Your task to perform on an android device: Open the web browser Image 0: 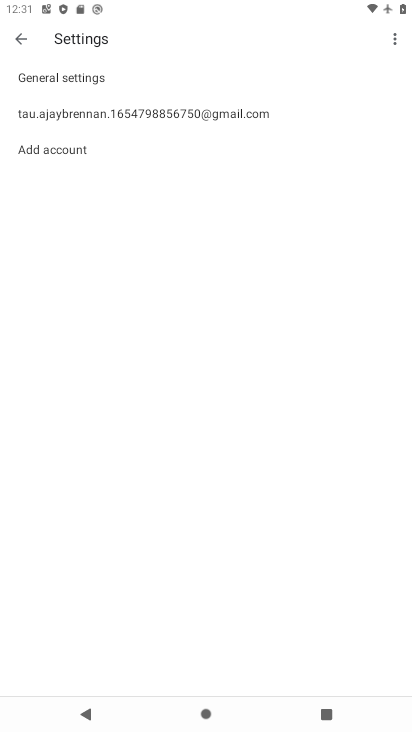
Step 0: press home button
Your task to perform on an android device: Open the web browser Image 1: 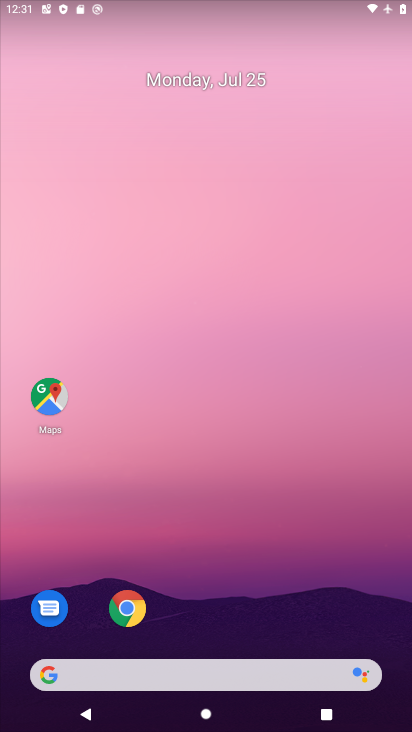
Step 1: drag from (143, 663) to (306, 79)
Your task to perform on an android device: Open the web browser Image 2: 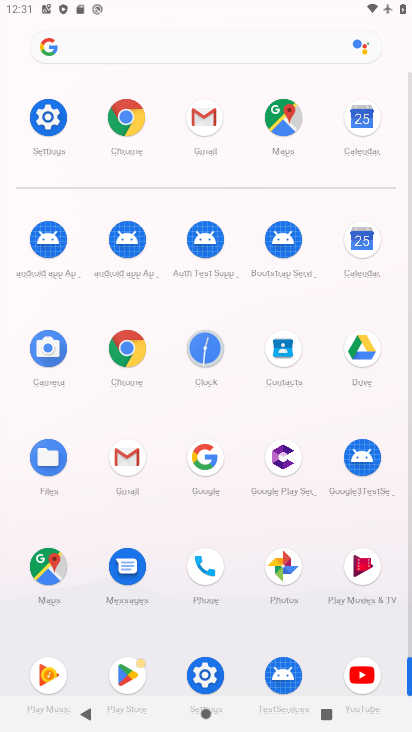
Step 2: click (133, 130)
Your task to perform on an android device: Open the web browser Image 3: 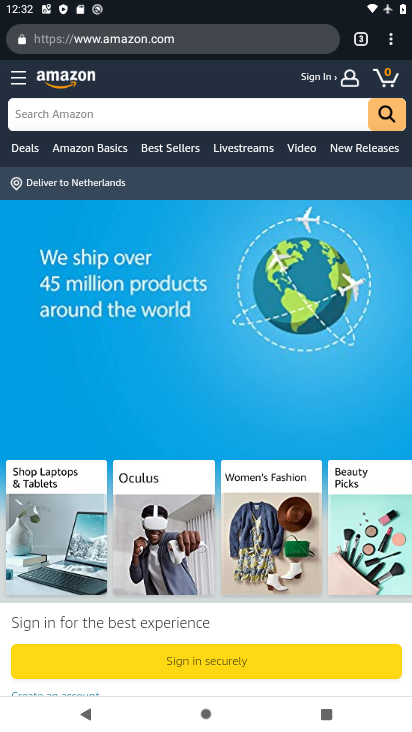
Step 3: task complete